Your task to perform on an android device: open wifi settings Image 0: 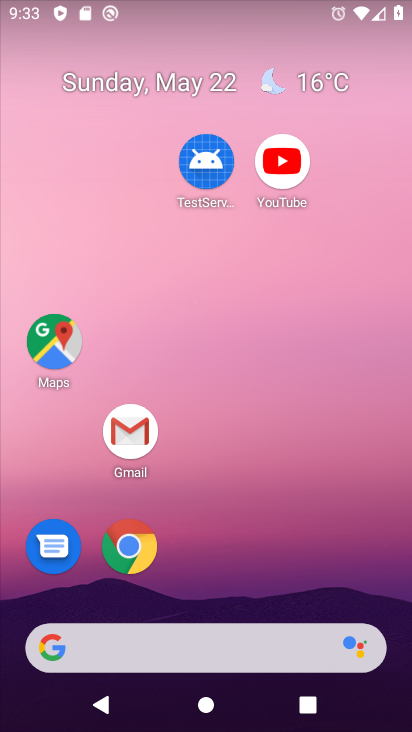
Step 0: drag from (245, 713) to (254, 95)
Your task to perform on an android device: open wifi settings Image 1: 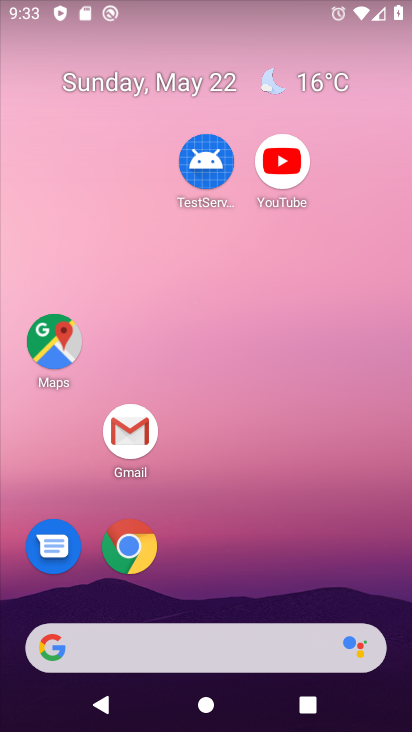
Step 1: drag from (244, 643) to (233, 101)
Your task to perform on an android device: open wifi settings Image 2: 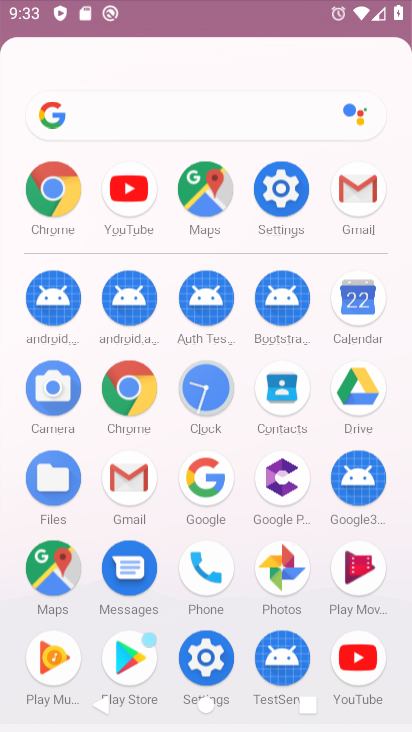
Step 2: drag from (249, 499) to (239, 134)
Your task to perform on an android device: open wifi settings Image 3: 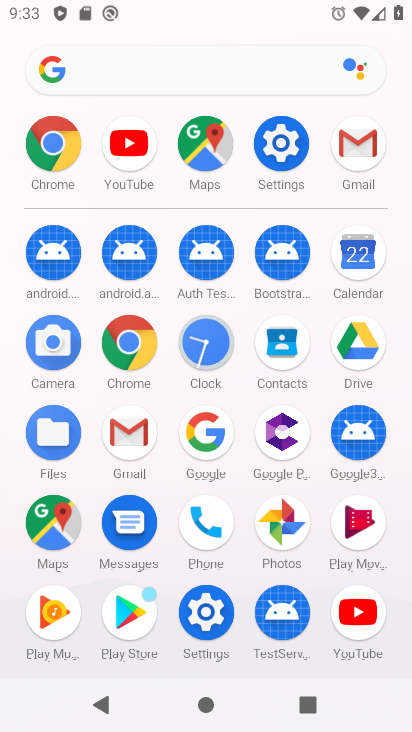
Step 3: drag from (273, 520) to (273, 16)
Your task to perform on an android device: open wifi settings Image 4: 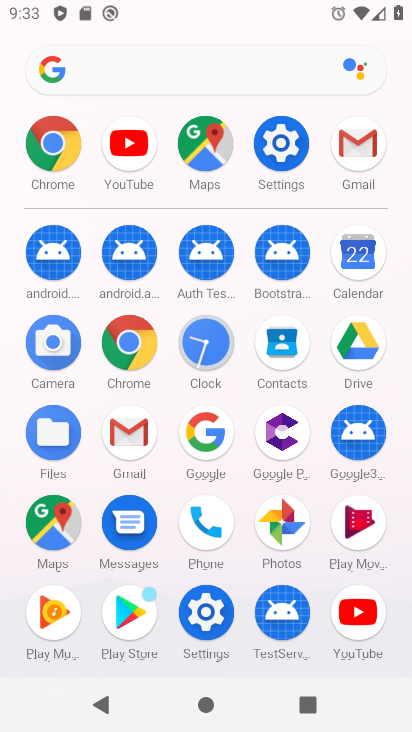
Step 4: click (270, 142)
Your task to perform on an android device: open wifi settings Image 5: 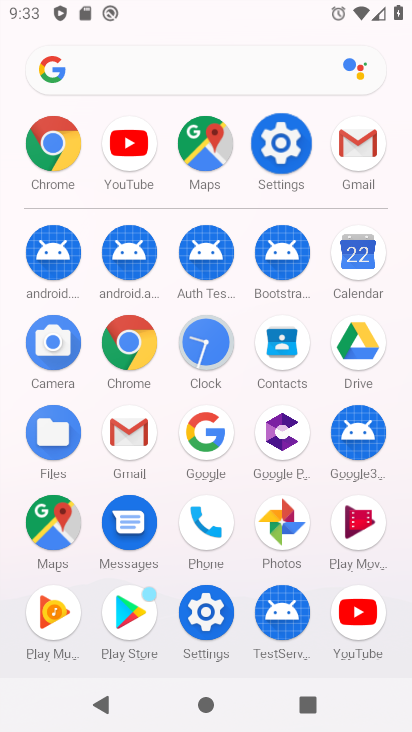
Step 5: click (270, 142)
Your task to perform on an android device: open wifi settings Image 6: 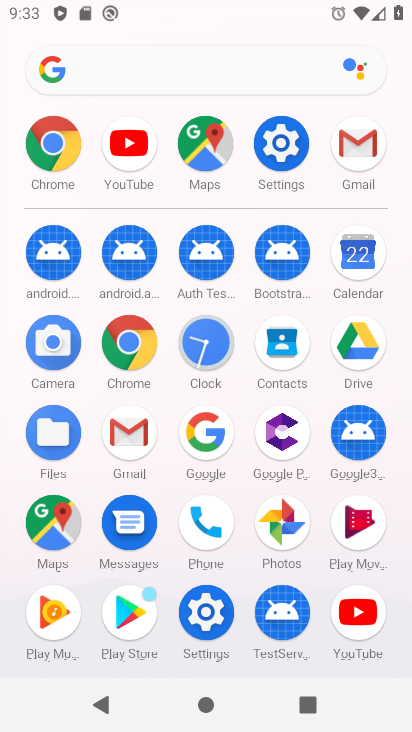
Step 6: click (275, 145)
Your task to perform on an android device: open wifi settings Image 7: 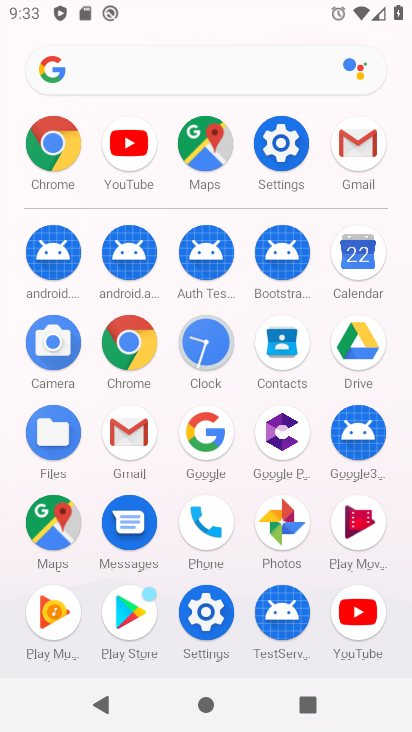
Step 7: click (286, 153)
Your task to perform on an android device: open wifi settings Image 8: 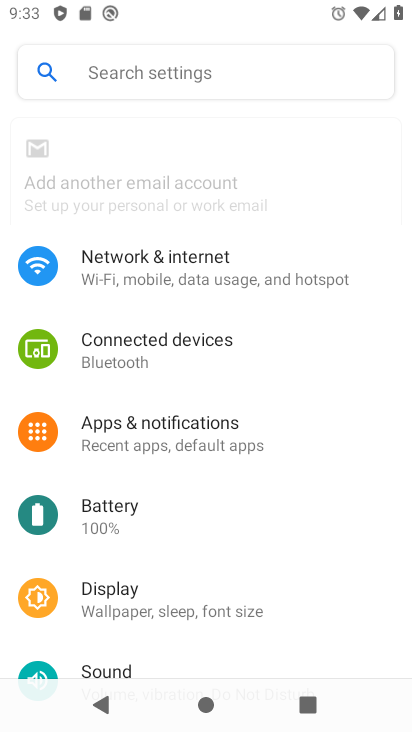
Step 8: click (288, 155)
Your task to perform on an android device: open wifi settings Image 9: 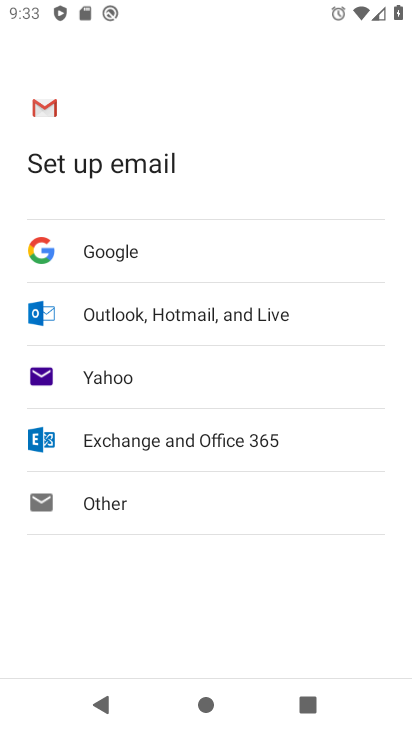
Step 9: click (179, 293)
Your task to perform on an android device: open wifi settings Image 10: 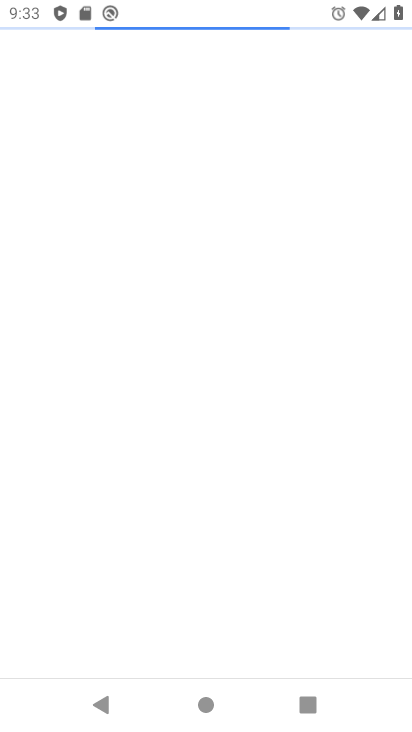
Step 10: press back button
Your task to perform on an android device: open wifi settings Image 11: 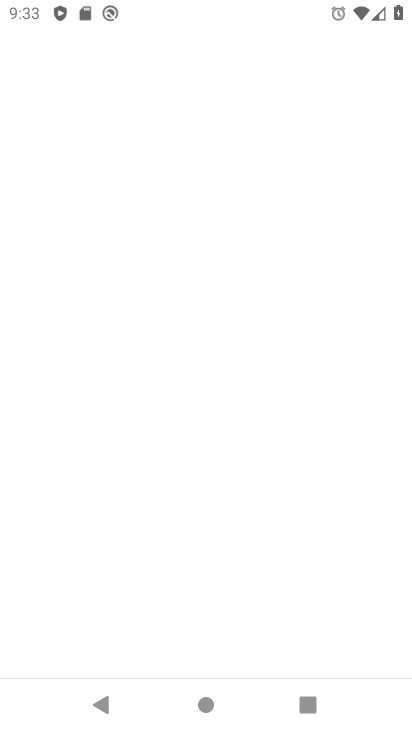
Step 11: press back button
Your task to perform on an android device: open wifi settings Image 12: 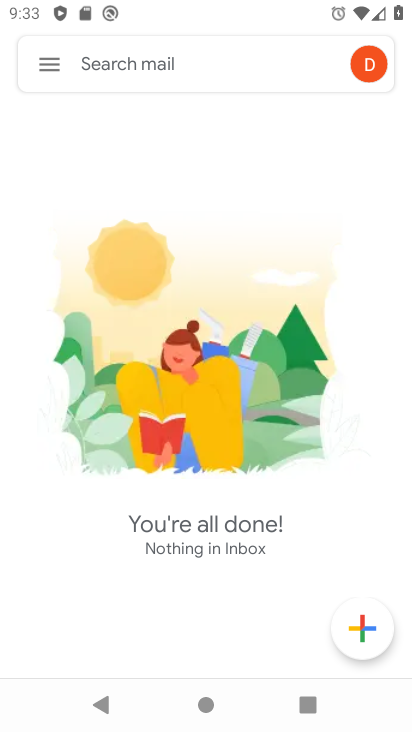
Step 12: press home button
Your task to perform on an android device: open wifi settings Image 13: 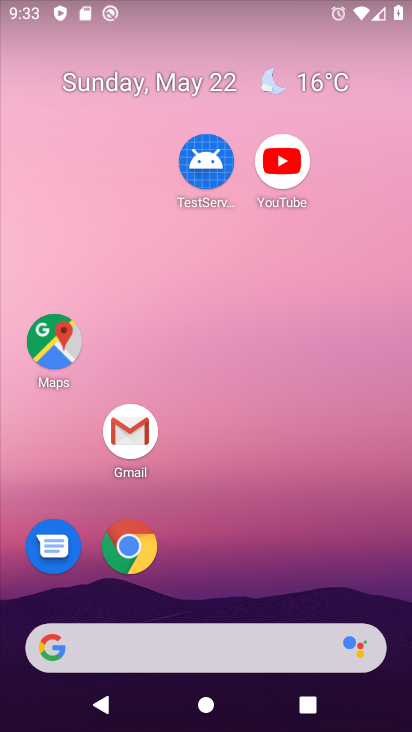
Step 13: drag from (257, 690) to (203, 123)
Your task to perform on an android device: open wifi settings Image 14: 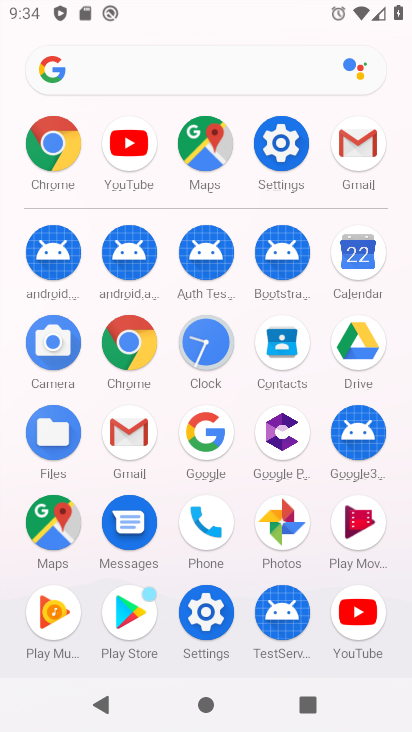
Step 14: click (284, 146)
Your task to perform on an android device: open wifi settings Image 15: 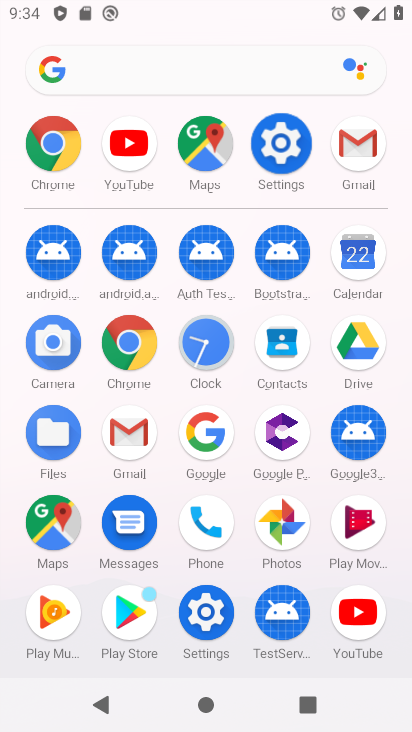
Step 15: click (287, 147)
Your task to perform on an android device: open wifi settings Image 16: 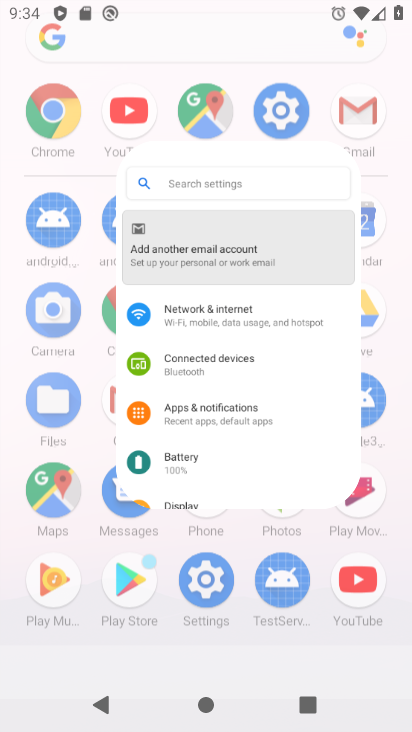
Step 16: click (287, 147)
Your task to perform on an android device: open wifi settings Image 17: 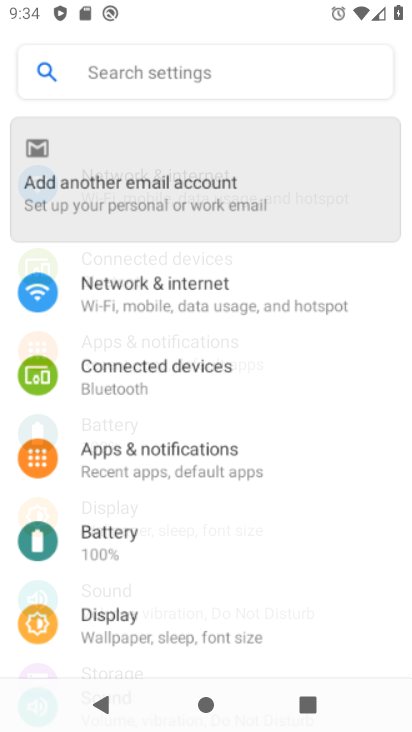
Step 17: click (287, 147)
Your task to perform on an android device: open wifi settings Image 18: 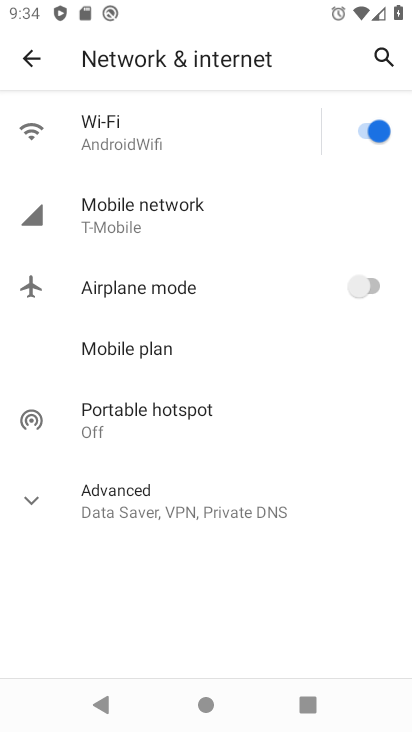
Step 18: task complete